Your task to perform on an android device: Open Chrome and go to the settings page Image 0: 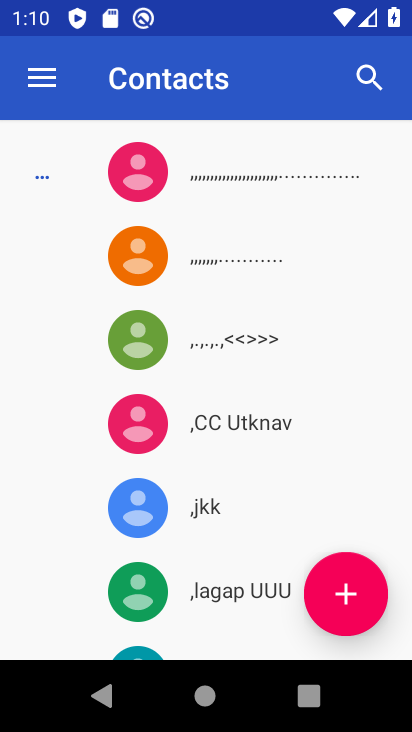
Step 0: press home button
Your task to perform on an android device: Open Chrome and go to the settings page Image 1: 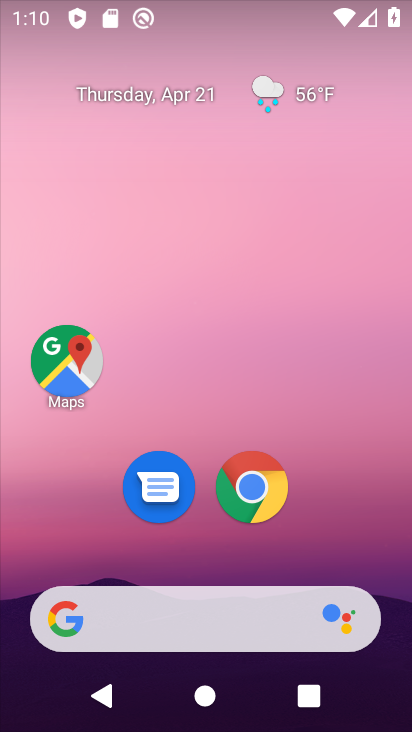
Step 1: click (253, 487)
Your task to perform on an android device: Open Chrome and go to the settings page Image 2: 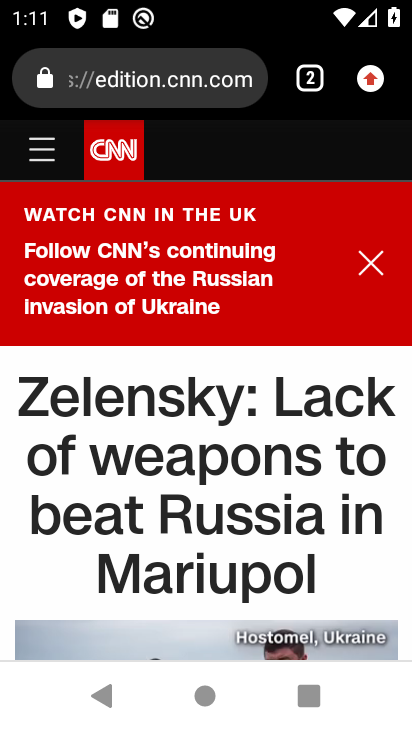
Step 2: click (367, 78)
Your task to perform on an android device: Open Chrome and go to the settings page Image 3: 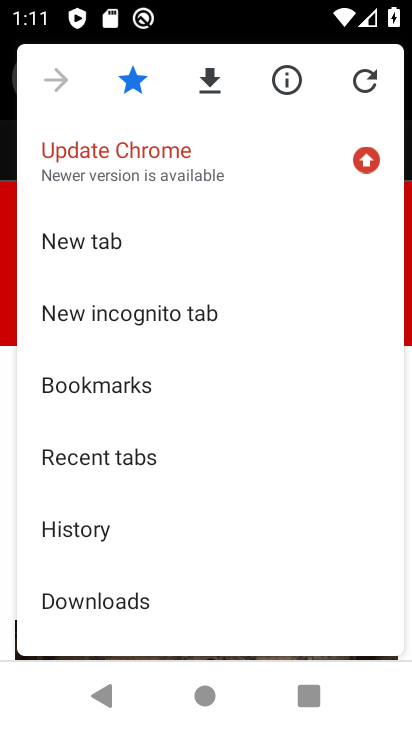
Step 3: drag from (209, 452) to (205, 179)
Your task to perform on an android device: Open Chrome and go to the settings page Image 4: 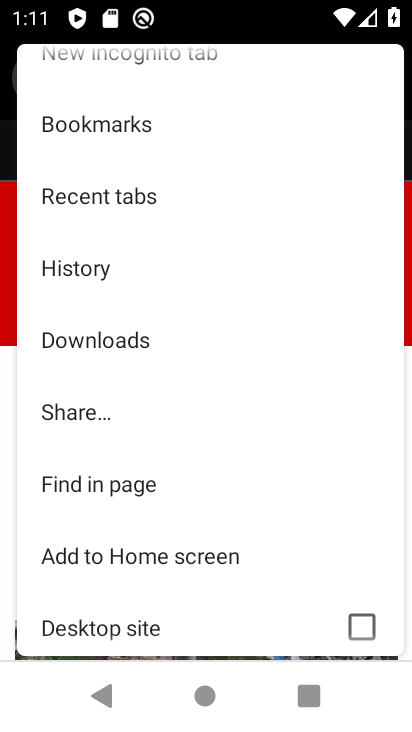
Step 4: drag from (155, 524) to (158, 229)
Your task to perform on an android device: Open Chrome and go to the settings page Image 5: 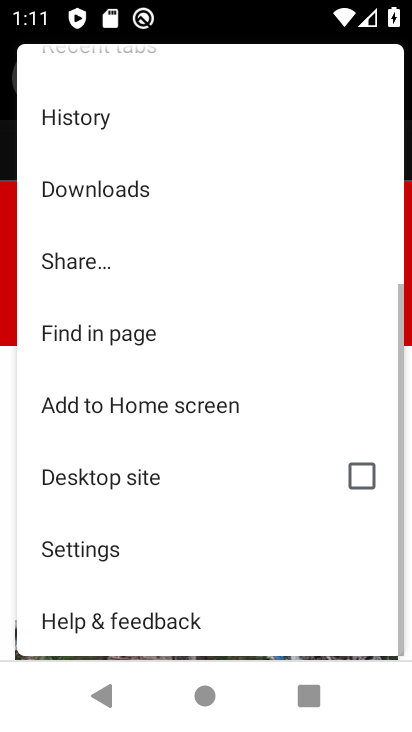
Step 5: click (73, 552)
Your task to perform on an android device: Open Chrome and go to the settings page Image 6: 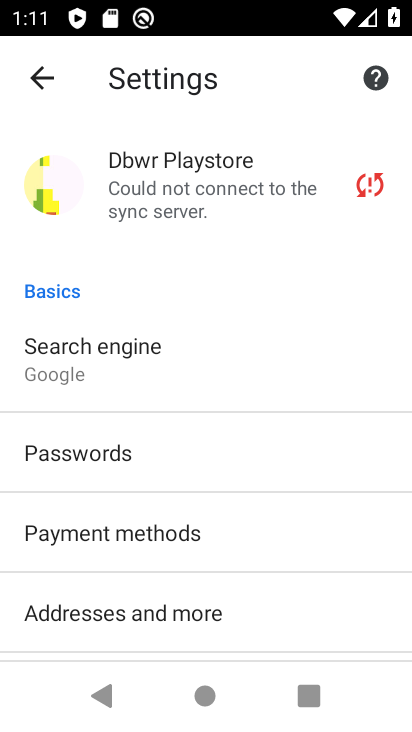
Step 6: task complete